Your task to perform on an android device: open app "DuckDuckGo Privacy Browser" (install if not already installed), go to login, and select forgot password Image 0: 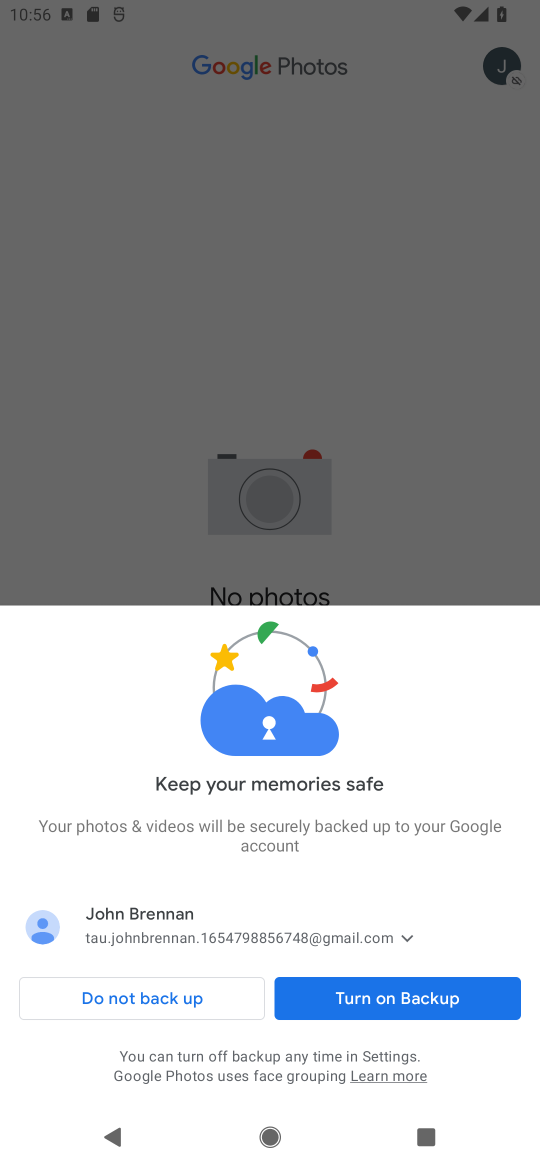
Step 0: press home button
Your task to perform on an android device: open app "DuckDuckGo Privacy Browser" (install if not already installed), go to login, and select forgot password Image 1: 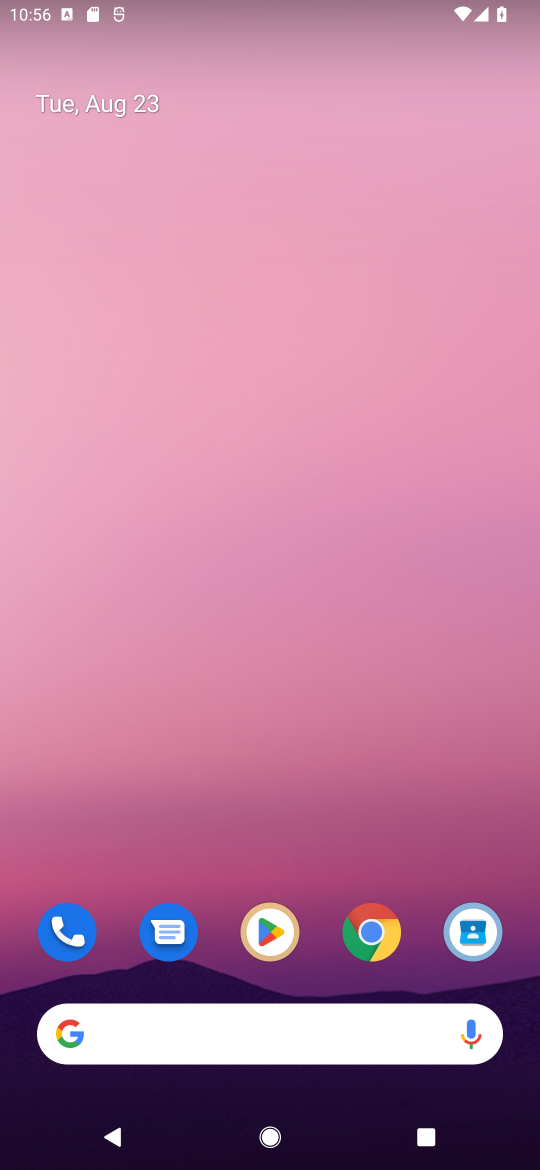
Step 1: click (261, 924)
Your task to perform on an android device: open app "DuckDuckGo Privacy Browser" (install if not already installed), go to login, and select forgot password Image 2: 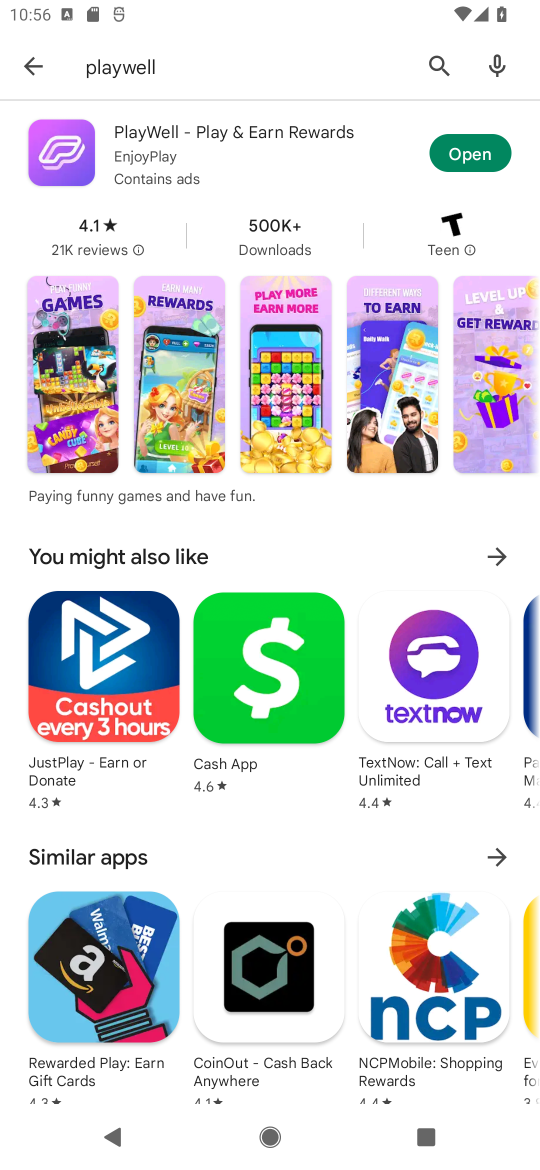
Step 2: click (437, 52)
Your task to perform on an android device: open app "DuckDuckGo Privacy Browser" (install if not already installed), go to login, and select forgot password Image 3: 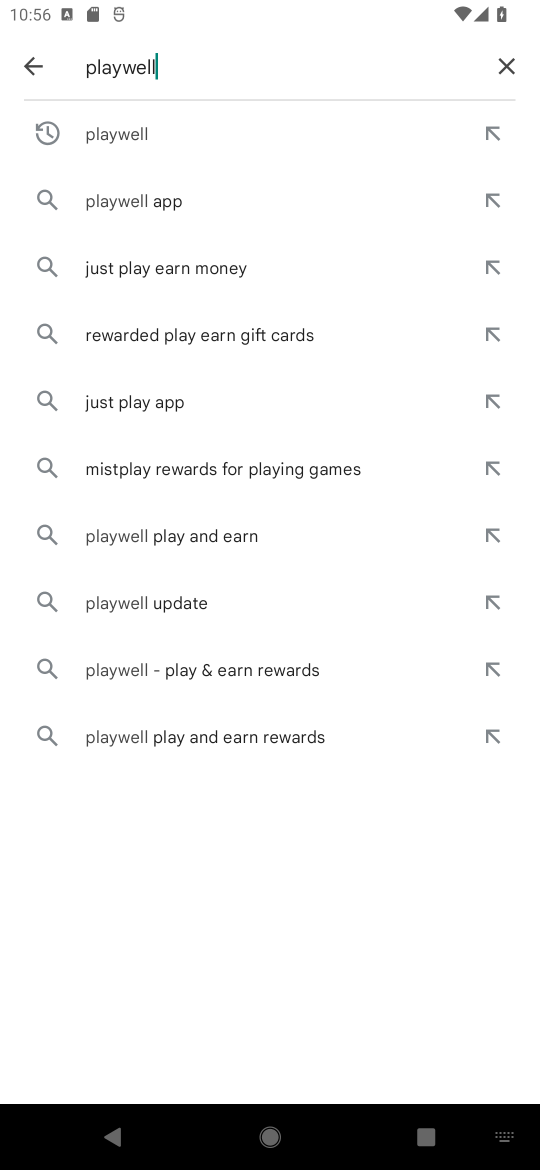
Step 3: click (518, 62)
Your task to perform on an android device: open app "DuckDuckGo Privacy Browser" (install if not already installed), go to login, and select forgot password Image 4: 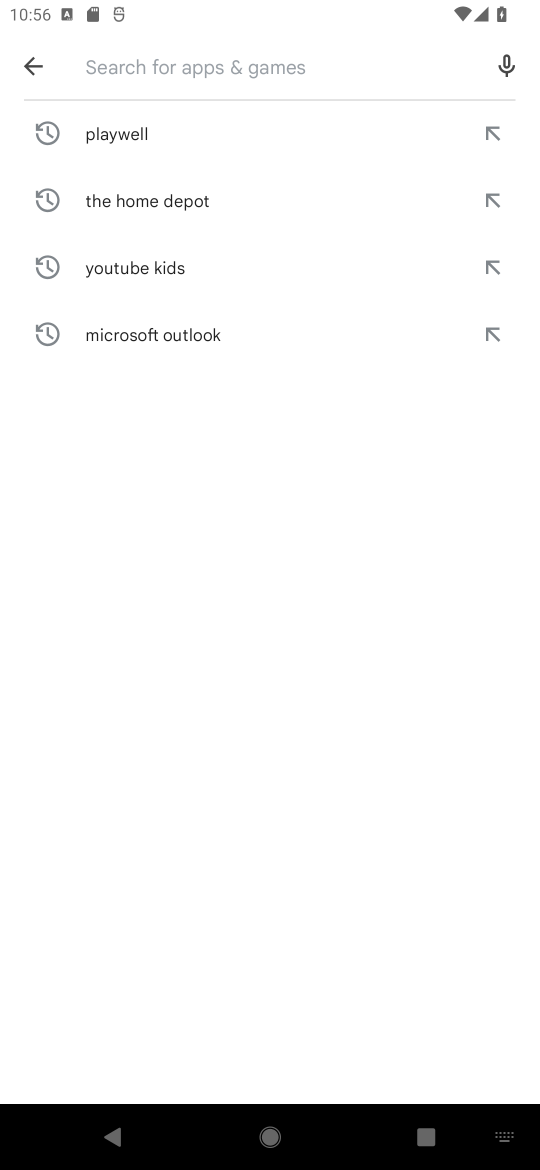
Step 4: click (238, 72)
Your task to perform on an android device: open app "DuckDuckGo Privacy Browser" (install if not already installed), go to login, and select forgot password Image 5: 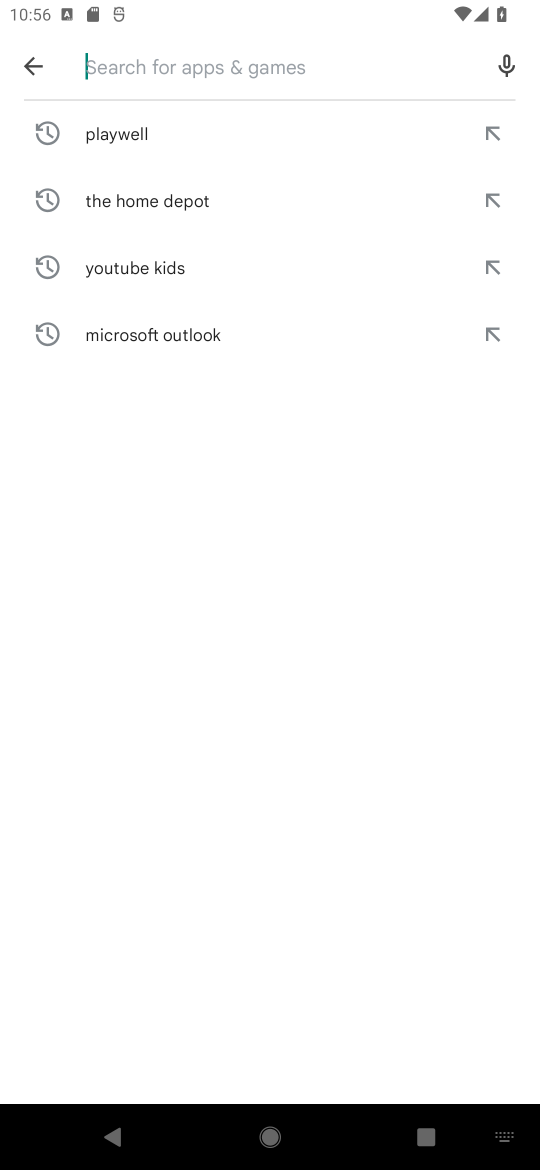
Step 5: type "DuckDuckGo Privacy Browser"
Your task to perform on an android device: open app "DuckDuckGo Privacy Browser" (install if not already installed), go to login, and select forgot password Image 6: 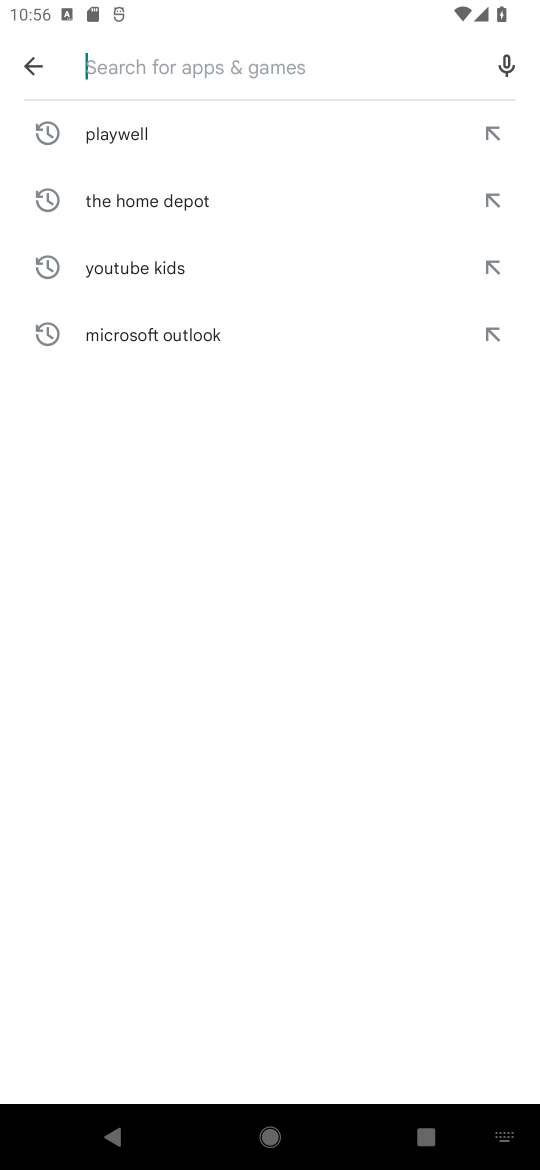
Step 6: click (346, 780)
Your task to perform on an android device: open app "DuckDuckGo Privacy Browser" (install if not already installed), go to login, and select forgot password Image 7: 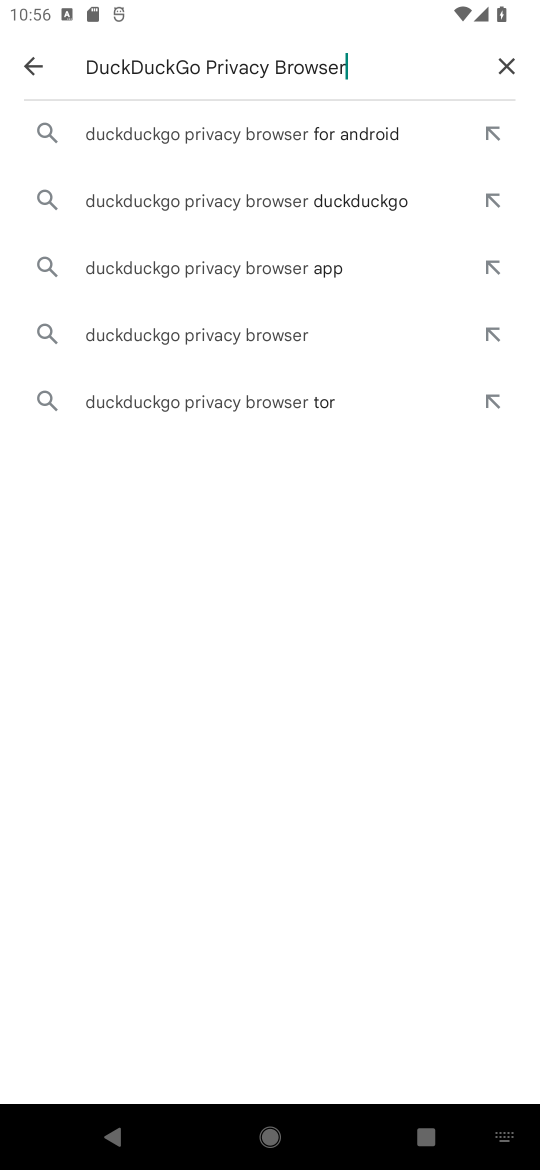
Step 7: click (259, 130)
Your task to perform on an android device: open app "DuckDuckGo Privacy Browser" (install if not already installed), go to login, and select forgot password Image 8: 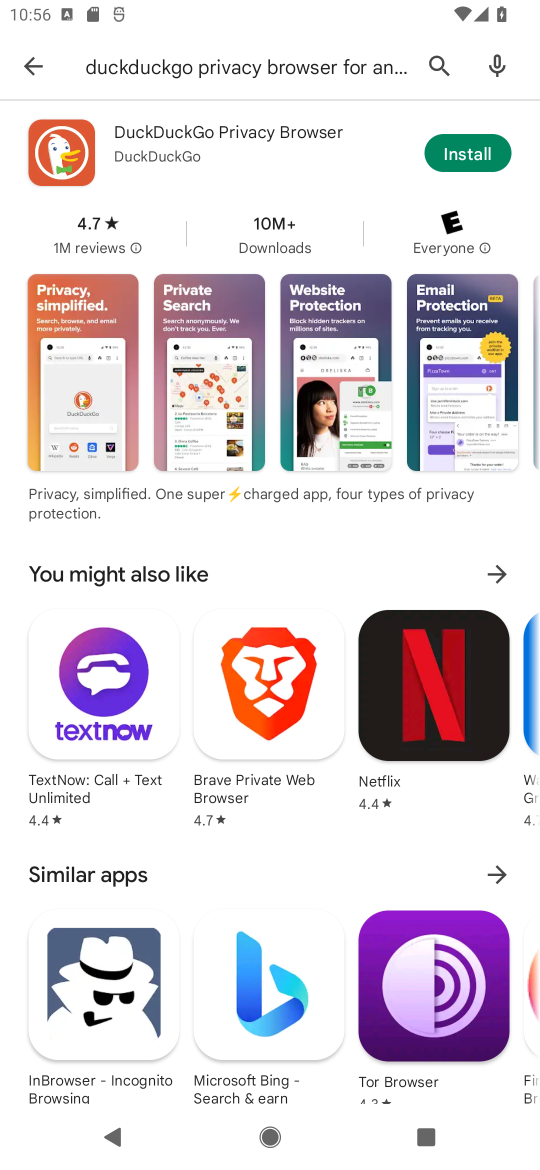
Step 8: click (451, 158)
Your task to perform on an android device: open app "DuckDuckGo Privacy Browser" (install if not already installed), go to login, and select forgot password Image 9: 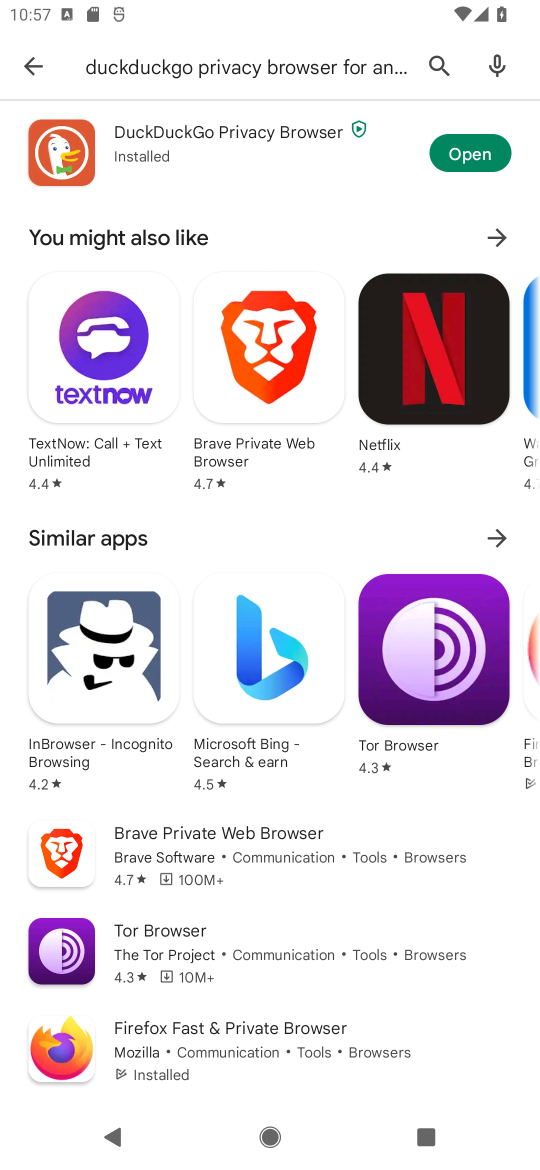
Step 9: click (451, 158)
Your task to perform on an android device: open app "DuckDuckGo Privacy Browser" (install if not already installed), go to login, and select forgot password Image 10: 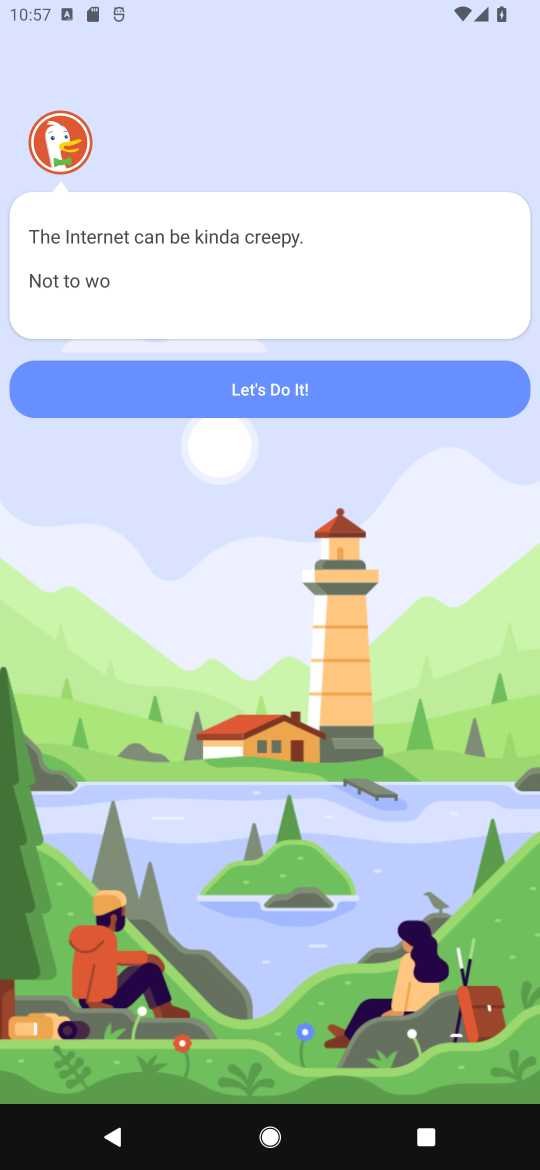
Step 10: click (297, 396)
Your task to perform on an android device: open app "DuckDuckGo Privacy Browser" (install if not already installed), go to login, and select forgot password Image 11: 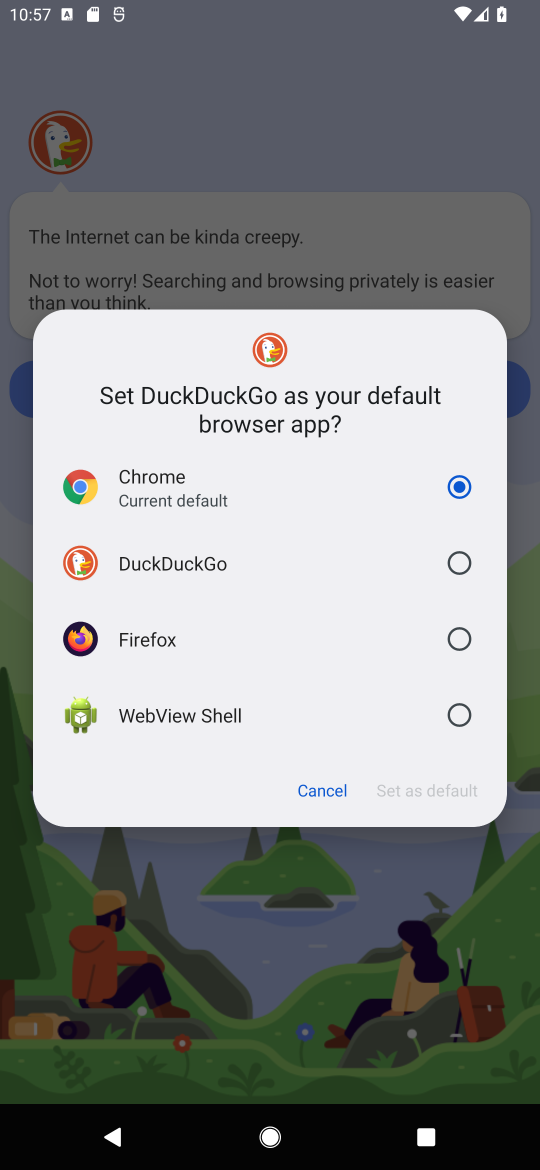
Step 11: click (455, 561)
Your task to perform on an android device: open app "DuckDuckGo Privacy Browser" (install if not already installed), go to login, and select forgot password Image 12: 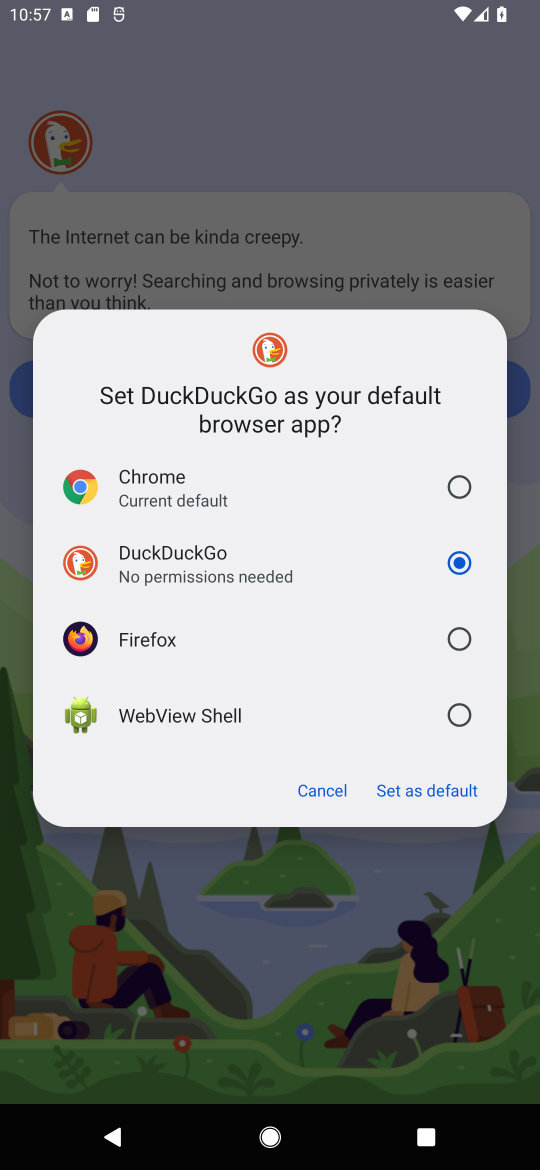
Step 12: click (402, 787)
Your task to perform on an android device: open app "DuckDuckGo Privacy Browser" (install if not already installed), go to login, and select forgot password Image 13: 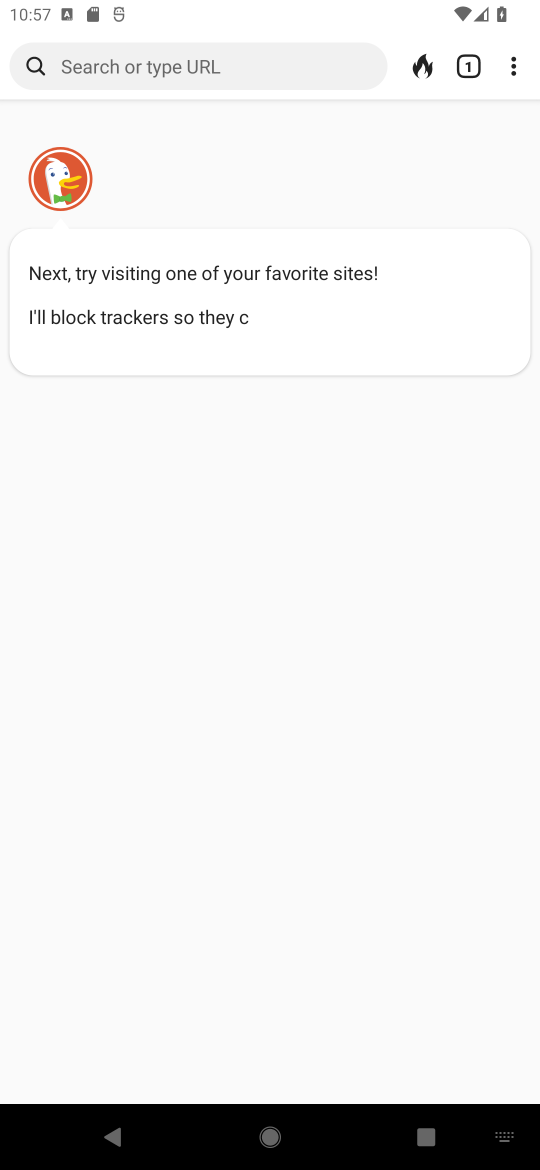
Step 13: task complete